Your task to perform on an android device: When is my next meeting? Image 0: 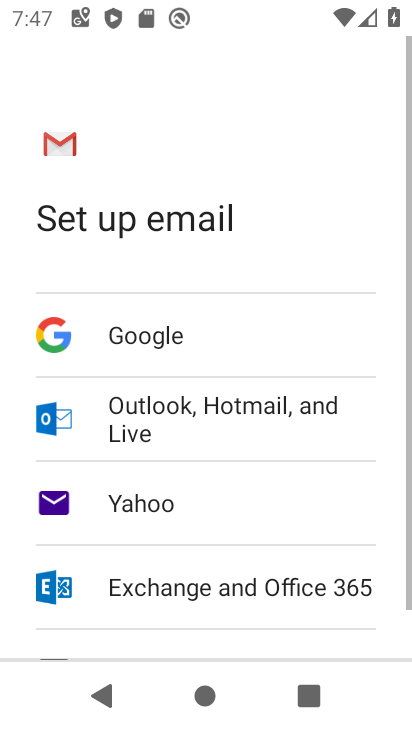
Step 0: press back button
Your task to perform on an android device: When is my next meeting? Image 1: 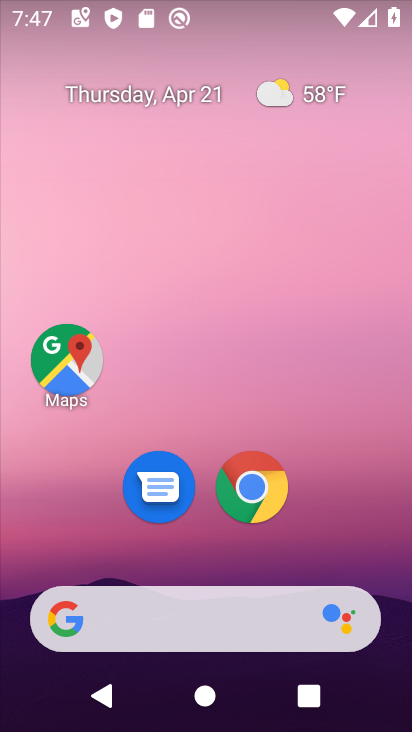
Step 1: drag from (324, 494) to (244, 60)
Your task to perform on an android device: When is my next meeting? Image 2: 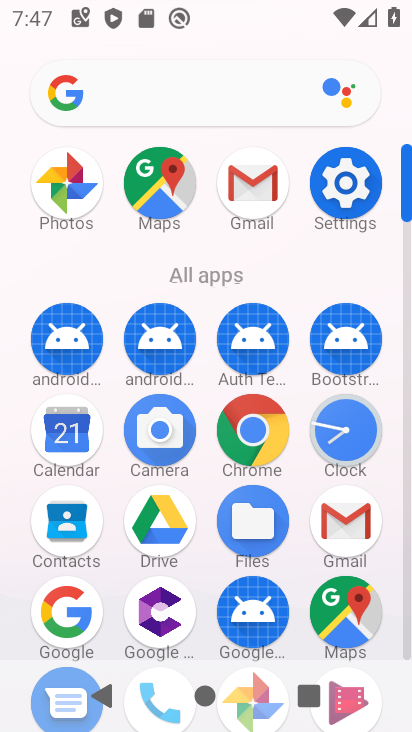
Step 2: click (63, 423)
Your task to perform on an android device: When is my next meeting? Image 3: 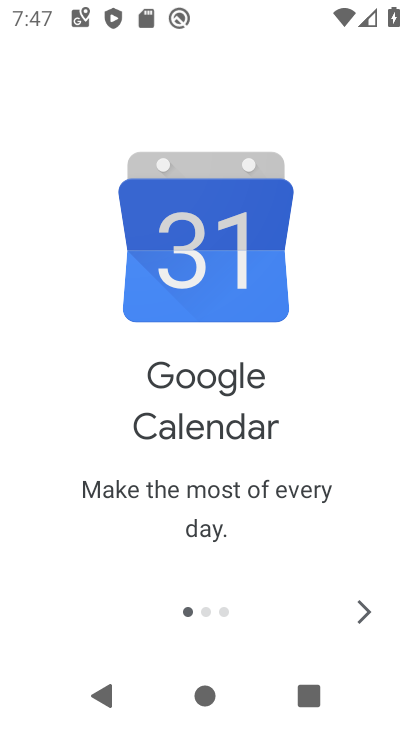
Step 3: click (350, 611)
Your task to perform on an android device: When is my next meeting? Image 4: 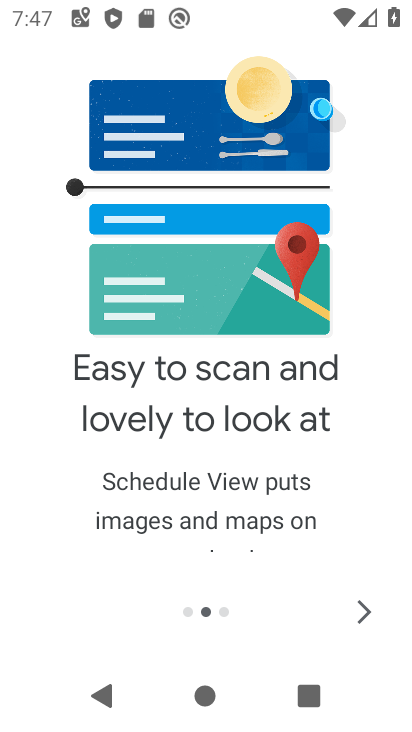
Step 4: click (350, 611)
Your task to perform on an android device: When is my next meeting? Image 5: 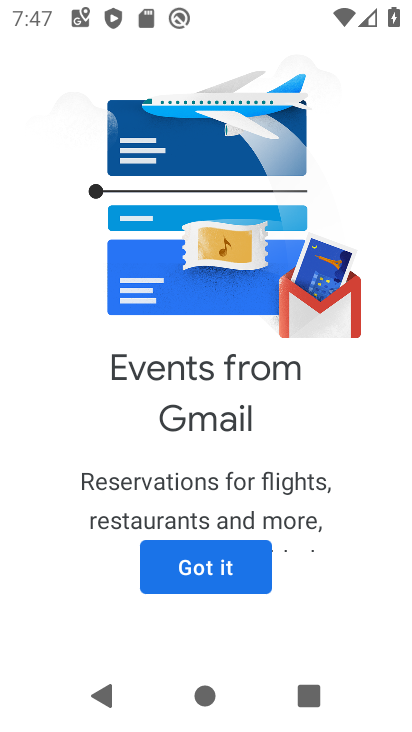
Step 5: click (248, 567)
Your task to perform on an android device: When is my next meeting? Image 6: 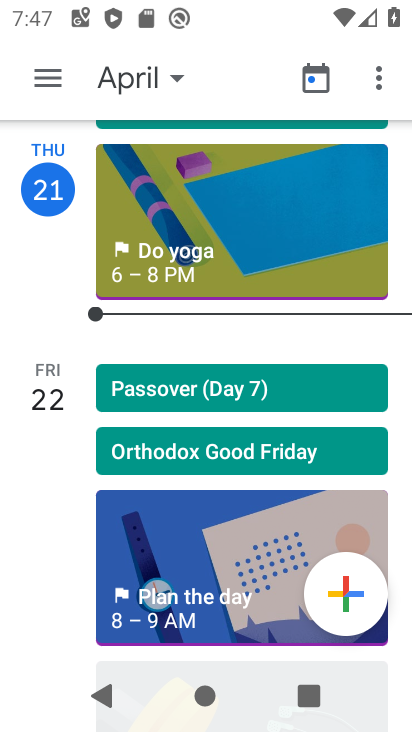
Step 6: click (60, 91)
Your task to perform on an android device: When is my next meeting? Image 7: 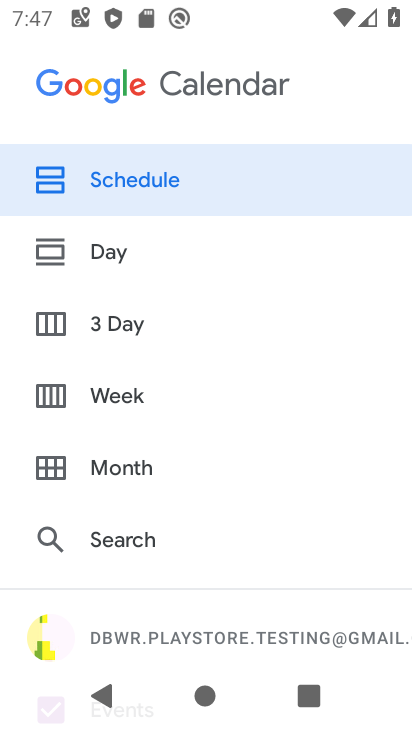
Step 7: drag from (255, 460) to (263, 113)
Your task to perform on an android device: When is my next meeting? Image 8: 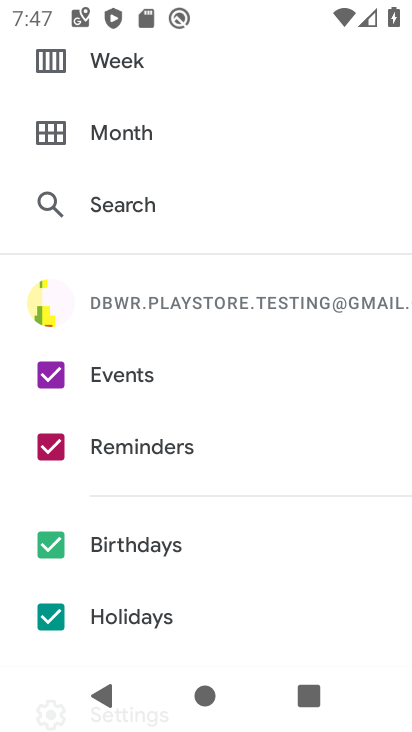
Step 8: drag from (249, 544) to (277, 203)
Your task to perform on an android device: When is my next meeting? Image 9: 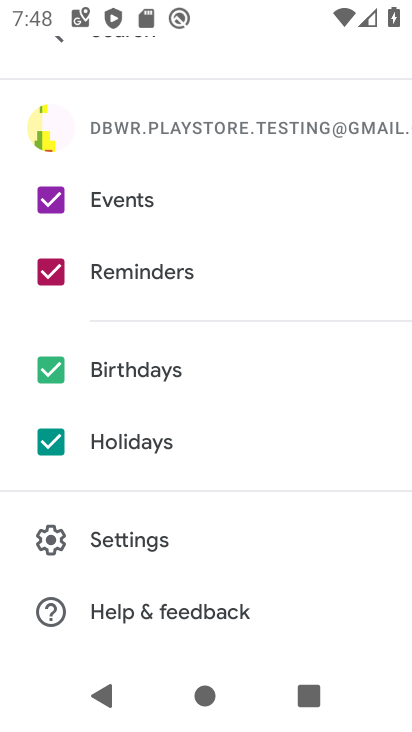
Step 9: click (48, 272)
Your task to perform on an android device: When is my next meeting? Image 10: 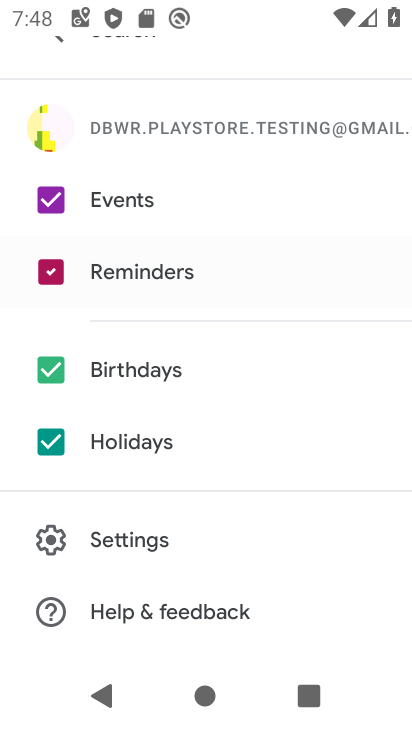
Step 10: click (48, 377)
Your task to perform on an android device: When is my next meeting? Image 11: 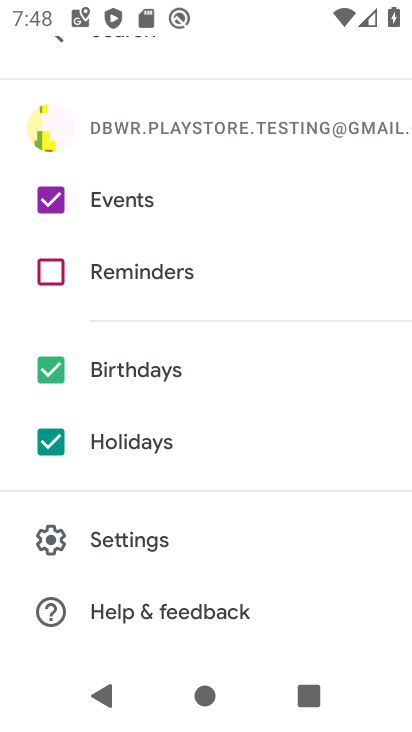
Step 11: click (54, 446)
Your task to perform on an android device: When is my next meeting? Image 12: 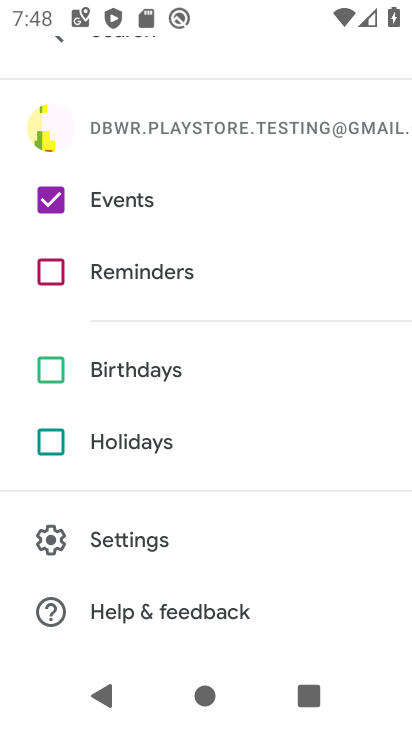
Step 12: drag from (240, 173) to (284, 599)
Your task to perform on an android device: When is my next meeting? Image 13: 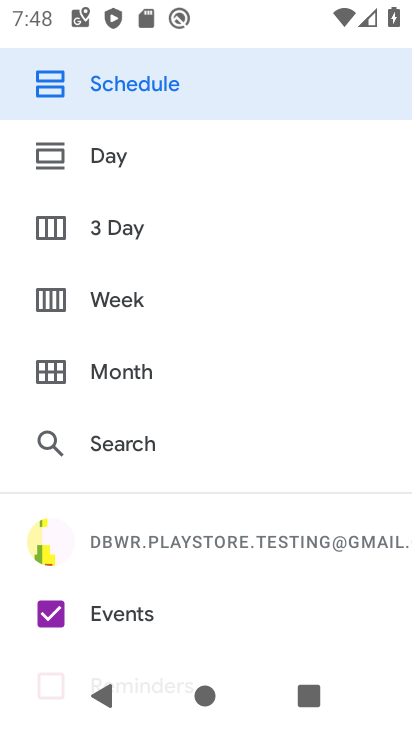
Step 13: drag from (333, 220) to (18, 246)
Your task to perform on an android device: When is my next meeting? Image 14: 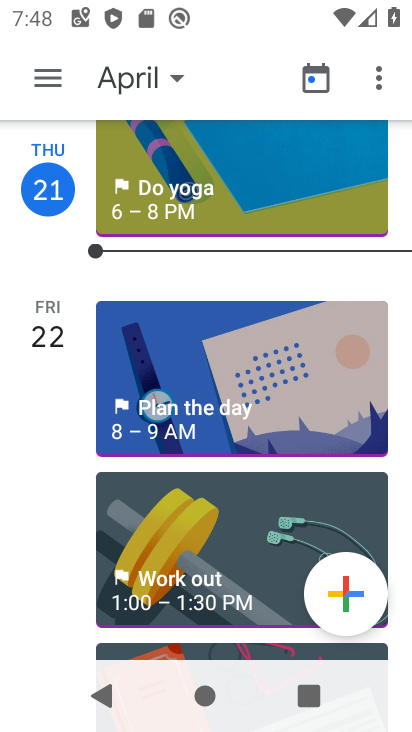
Step 14: click (53, 83)
Your task to perform on an android device: When is my next meeting? Image 15: 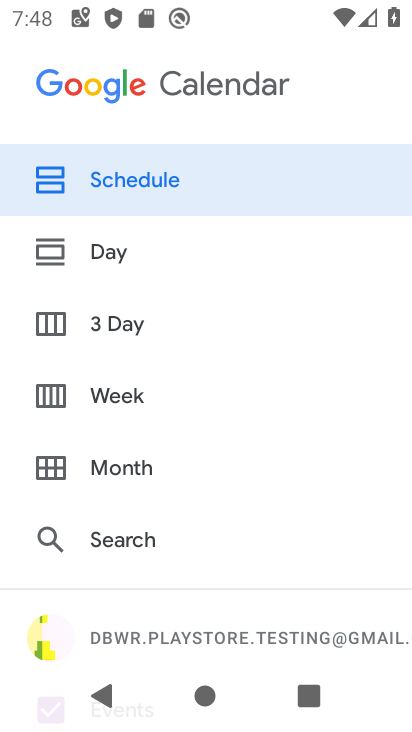
Step 15: click (128, 169)
Your task to perform on an android device: When is my next meeting? Image 16: 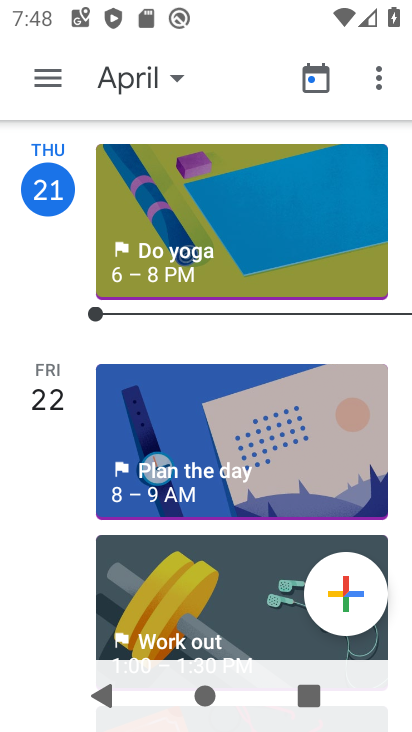
Step 16: task complete